Your task to perform on an android device: find which apps use the phone's location Image 0: 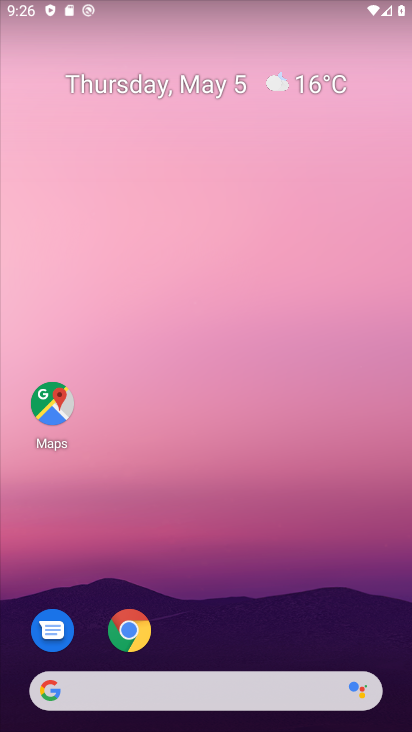
Step 0: drag from (222, 642) to (237, 198)
Your task to perform on an android device: find which apps use the phone's location Image 1: 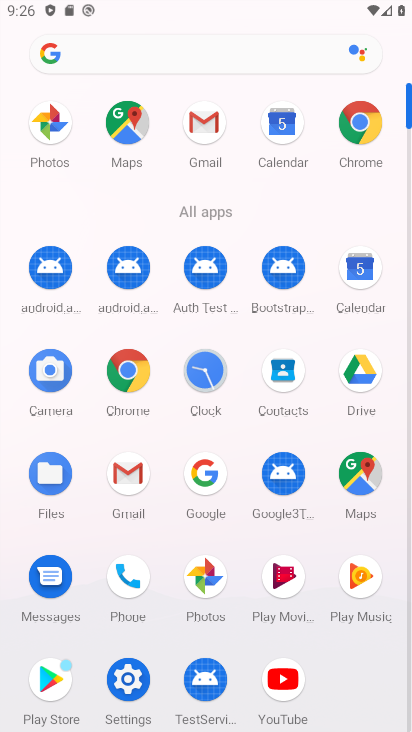
Step 1: click (118, 687)
Your task to perform on an android device: find which apps use the phone's location Image 2: 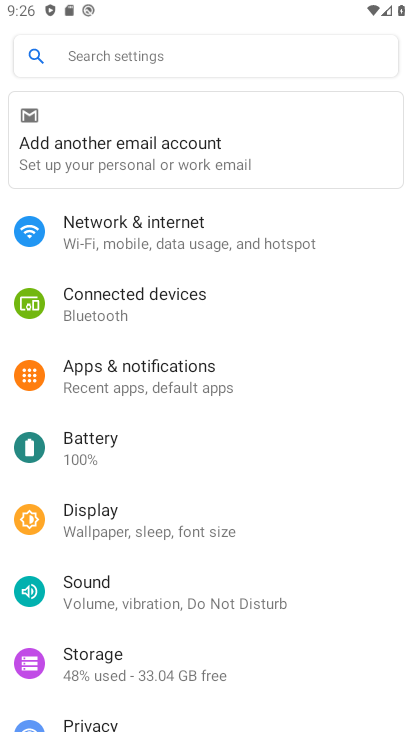
Step 2: drag from (182, 692) to (209, 393)
Your task to perform on an android device: find which apps use the phone's location Image 3: 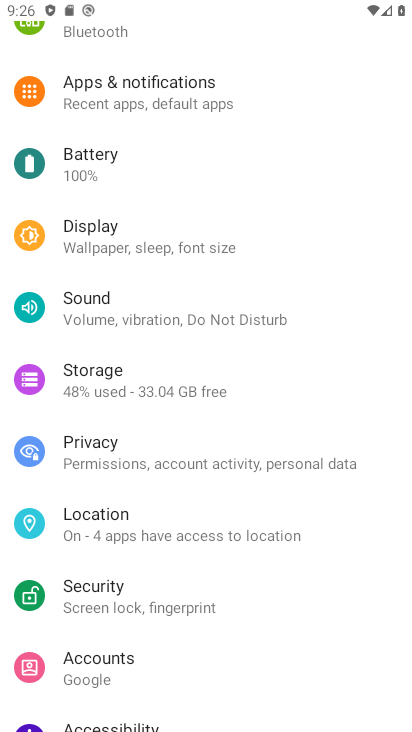
Step 3: click (180, 533)
Your task to perform on an android device: find which apps use the phone's location Image 4: 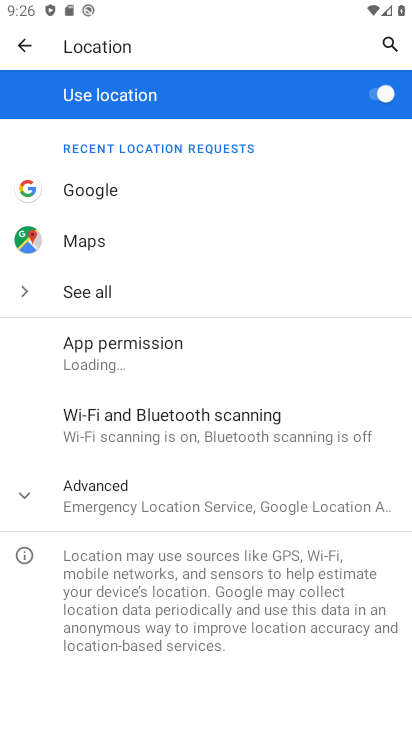
Step 4: click (115, 191)
Your task to perform on an android device: find which apps use the phone's location Image 5: 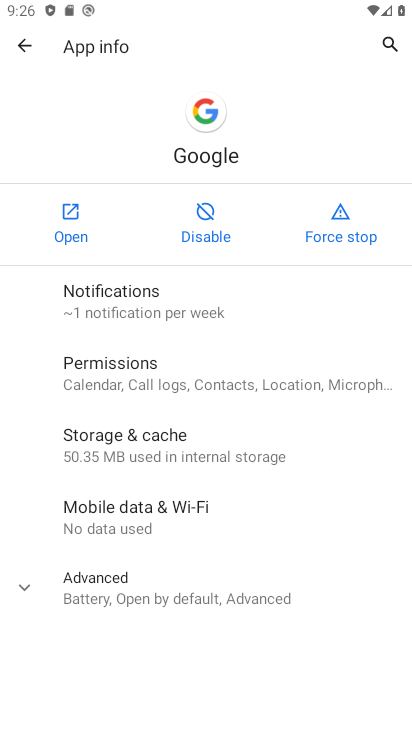
Step 5: click (116, 371)
Your task to perform on an android device: find which apps use the phone's location Image 6: 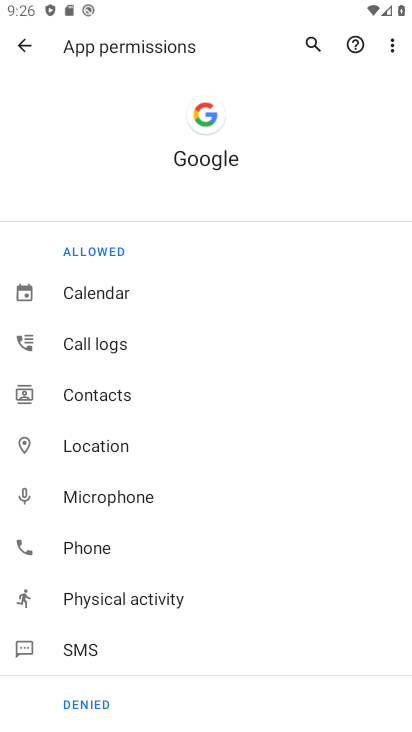
Step 6: click (119, 448)
Your task to perform on an android device: find which apps use the phone's location Image 7: 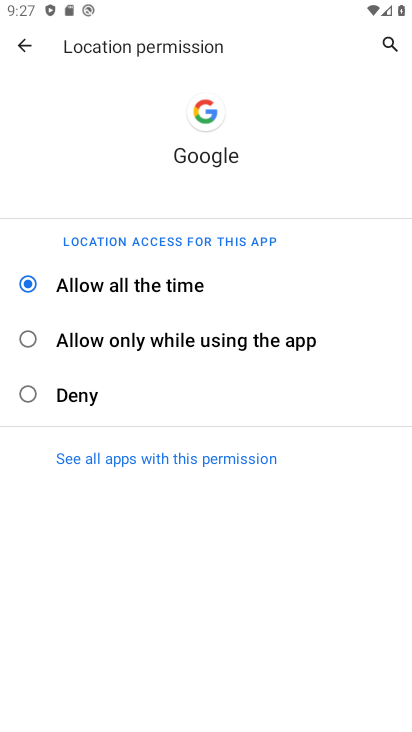
Step 7: task complete